Your task to perform on an android device: Search for Mexican restaurants on Maps Image 0: 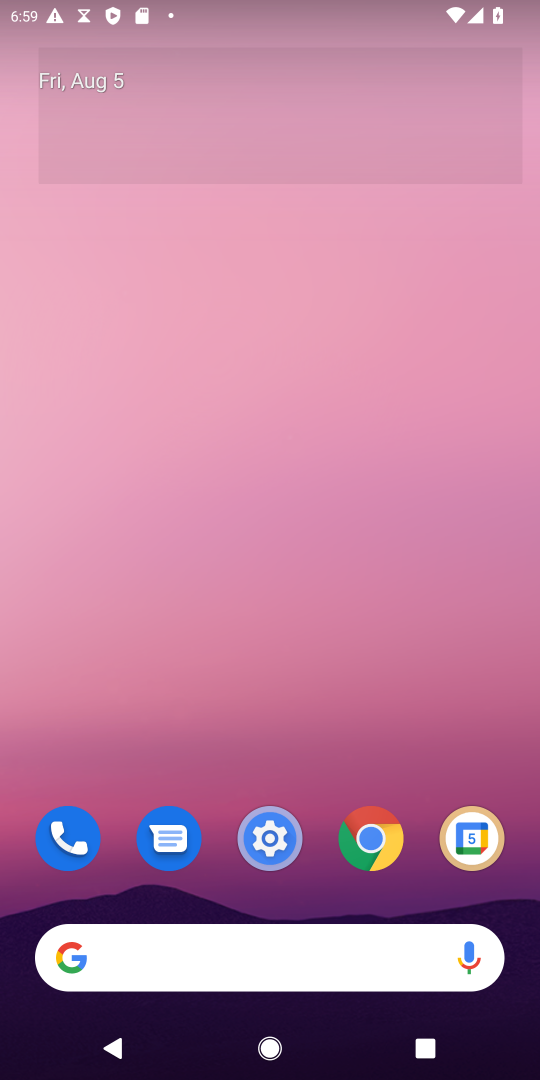
Step 0: press home button
Your task to perform on an android device: Search for Mexican restaurants on Maps Image 1: 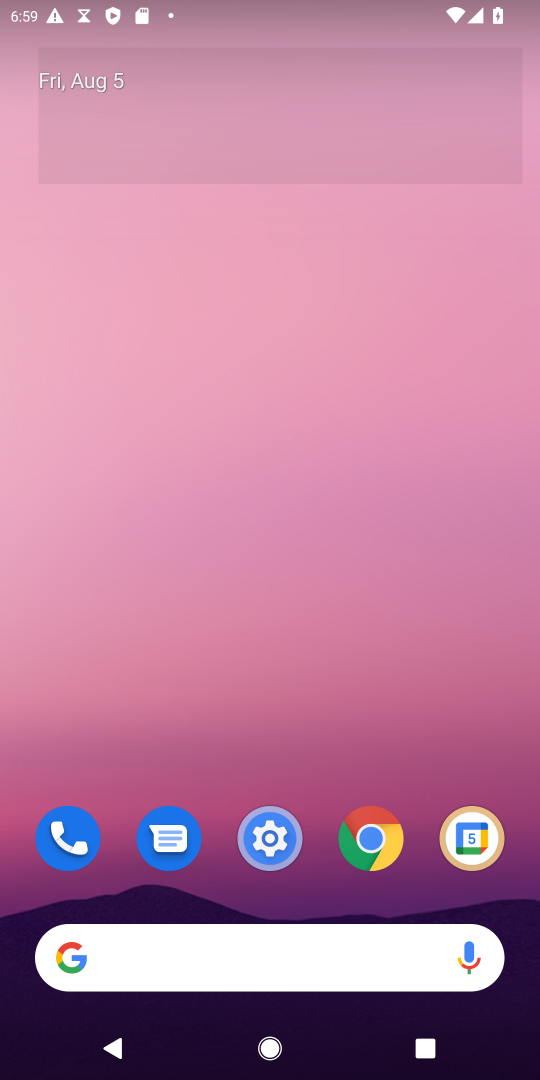
Step 1: drag from (266, 722) to (298, 0)
Your task to perform on an android device: Search for Mexican restaurants on Maps Image 2: 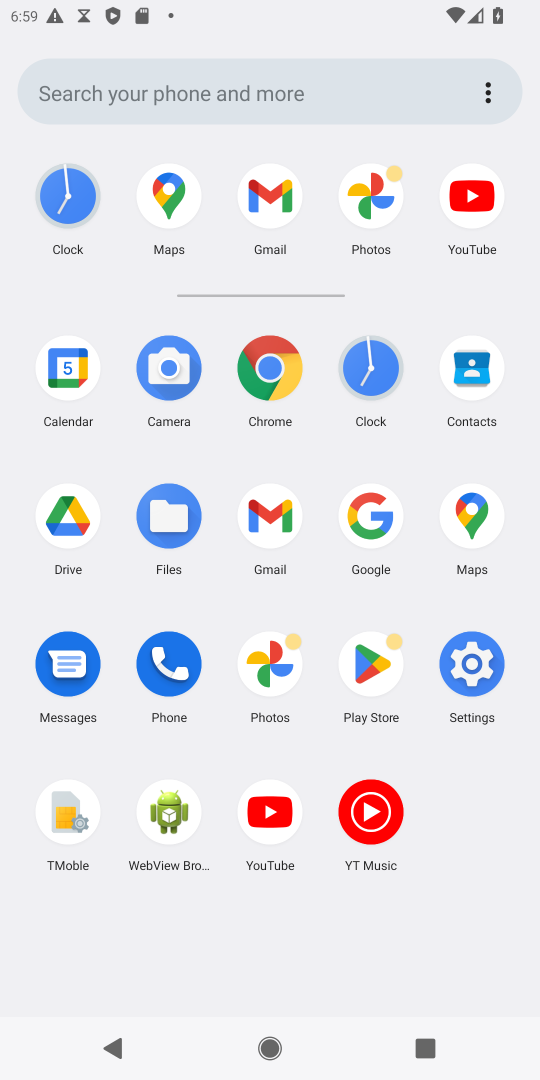
Step 2: click (467, 526)
Your task to perform on an android device: Search for Mexican restaurants on Maps Image 3: 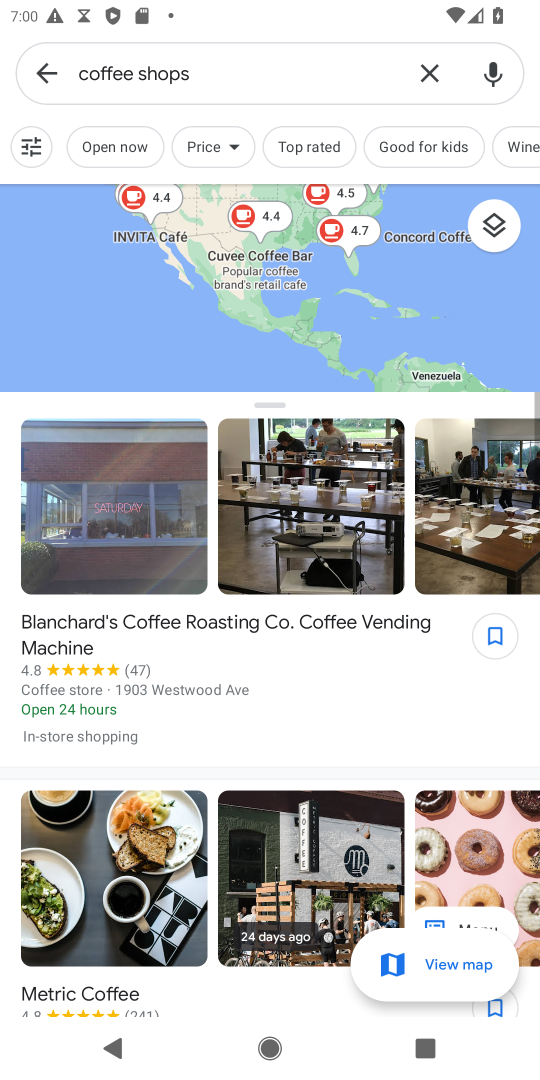
Step 3: click (226, 69)
Your task to perform on an android device: Search for Mexican restaurants on Maps Image 4: 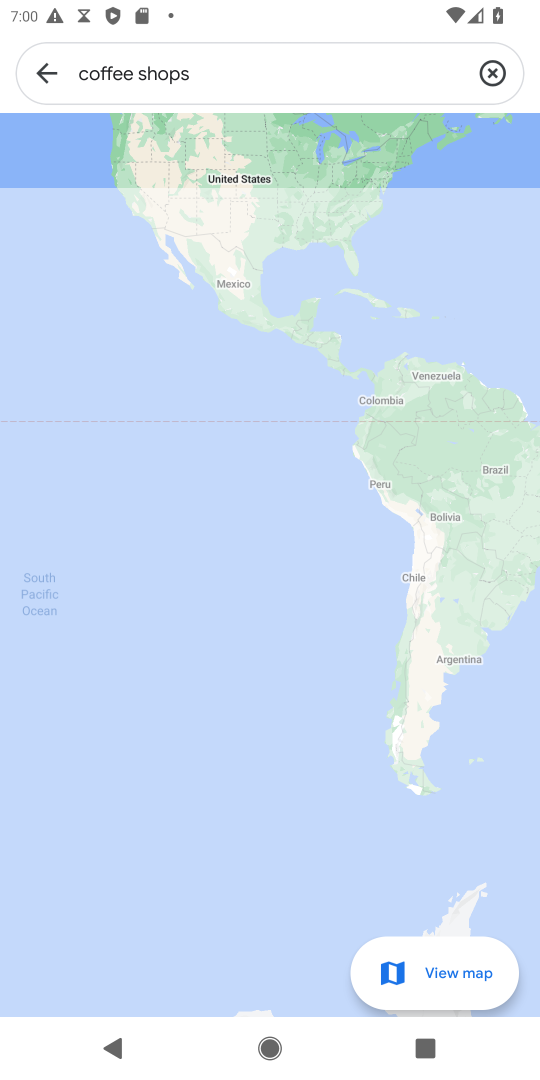
Step 4: click (429, 74)
Your task to perform on an android device: Search for Mexican restaurants on Maps Image 5: 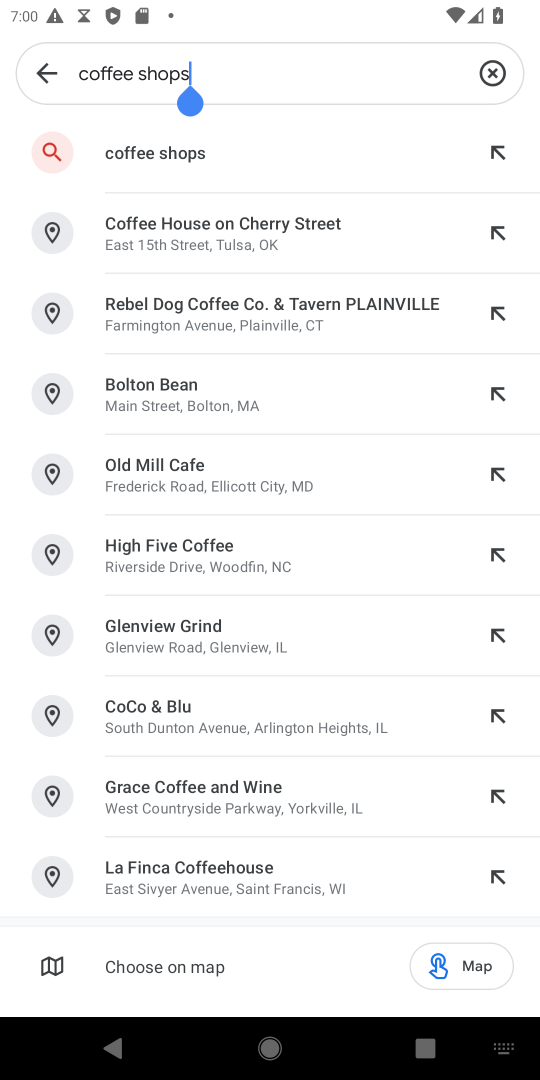
Step 5: click (484, 73)
Your task to perform on an android device: Search for Mexican restaurants on Maps Image 6: 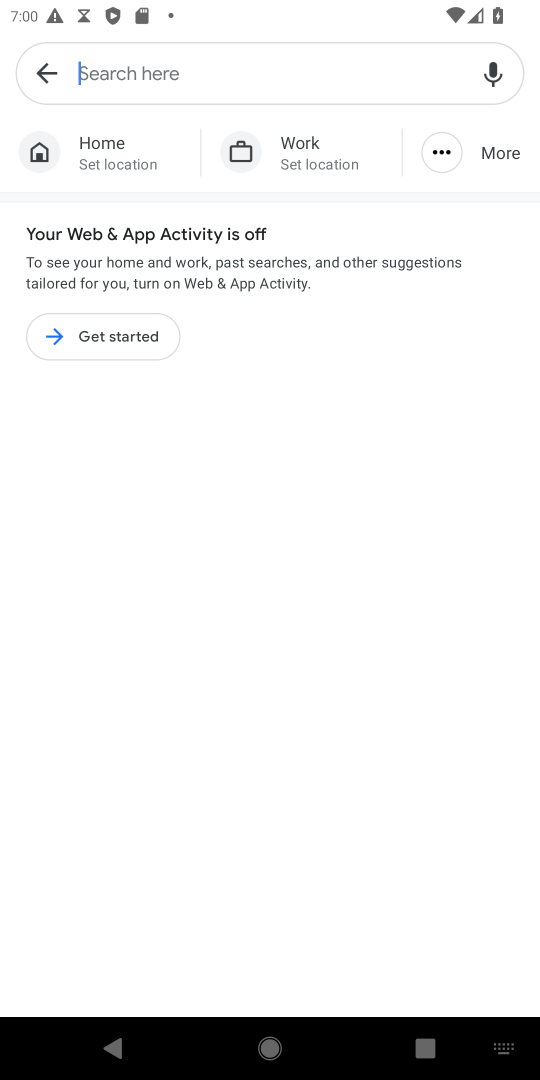
Step 6: type "Mexican restaurants"
Your task to perform on an android device: Search for Mexican restaurants on Maps Image 7: 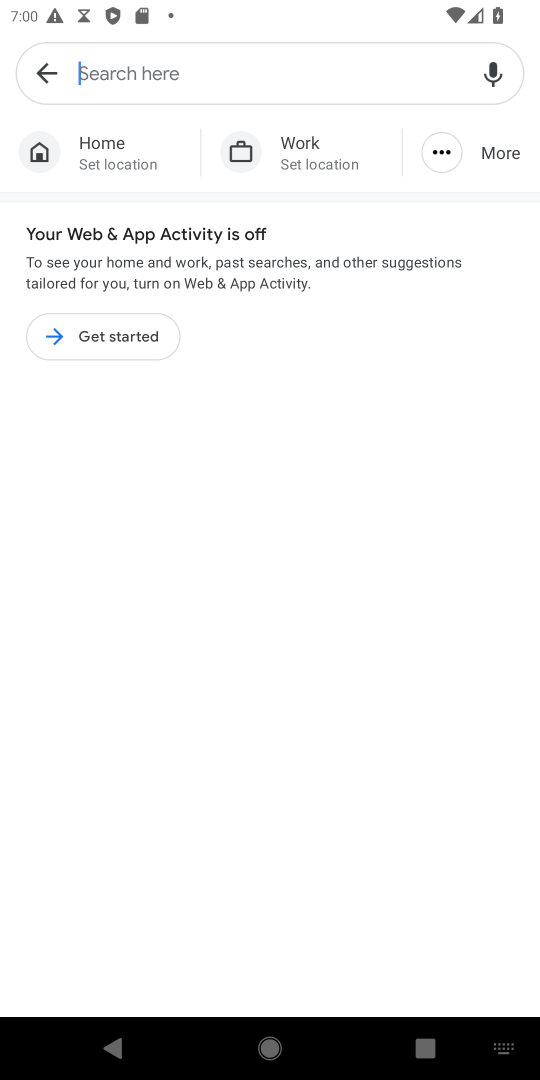
Step 7: click (238, 79)
Your task to perform on an android device: Search for Mexican restaurants on Maps Image 8: 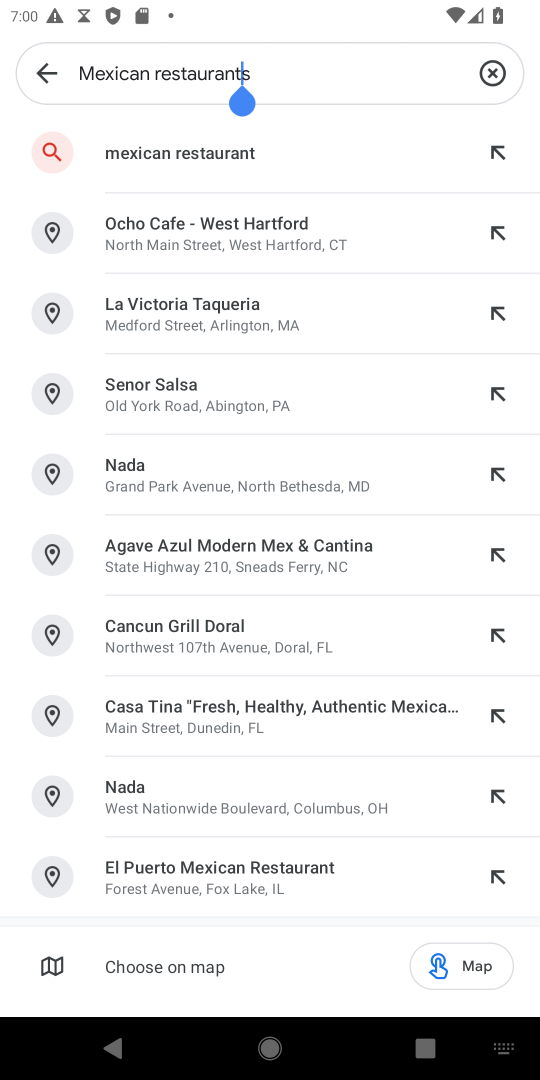
Step 8: click (222, 156)
Your task to perform on an android device: Search for Mexican restaurants on Maps Image 9: 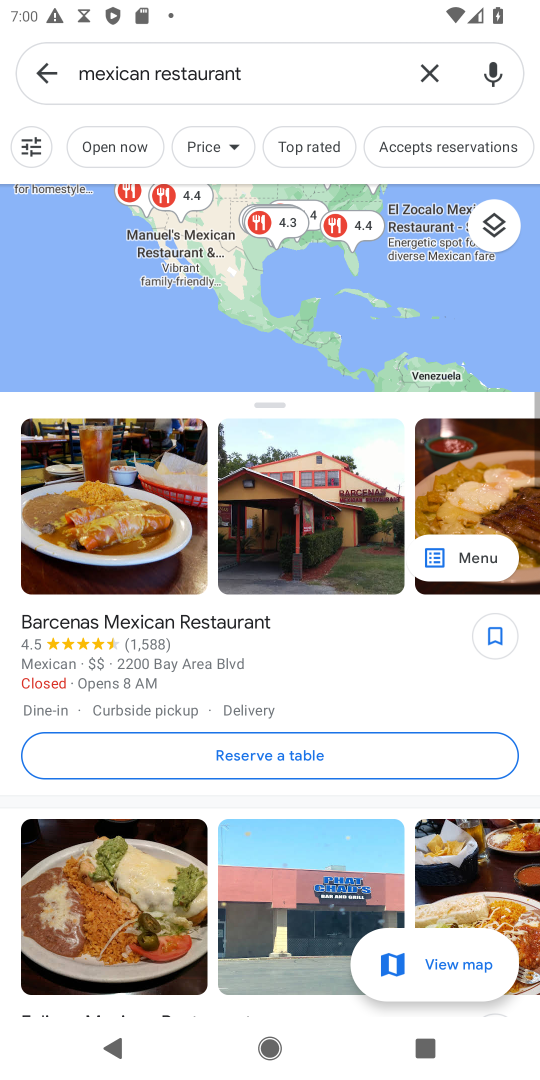
Step 9: task complete